Your task to perform on an android device: Open privacy settings Image 0: 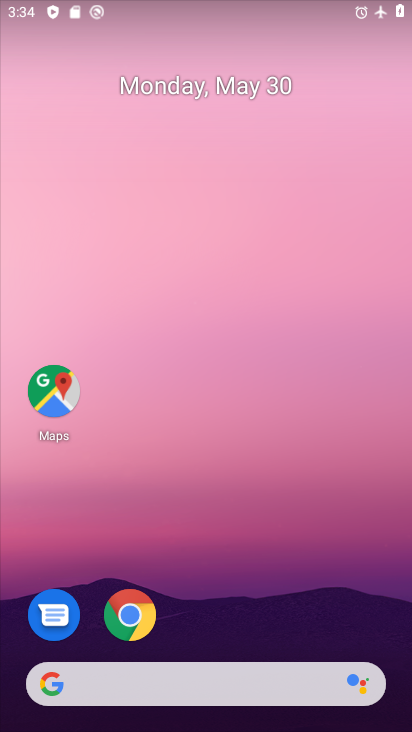
Step 0: drag from (243, 575) to (327, 2)
Your task to perform on an android device: Open privacy settings Image 1: 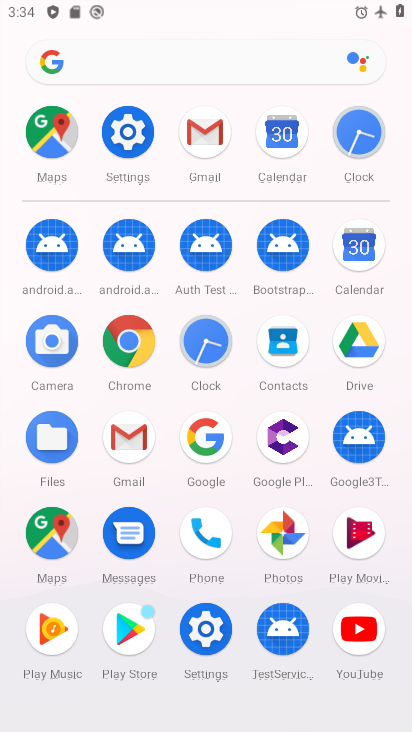
Step 1: click (131, 126)
Your task to perform on an android device: Open privacy settings Image 2: 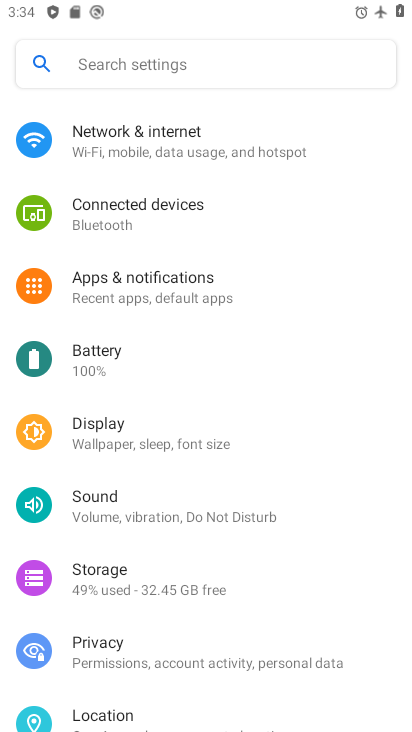
Step 2: click (193, 649)
Your task to perform on an android device: Open privacy settings Image 3: 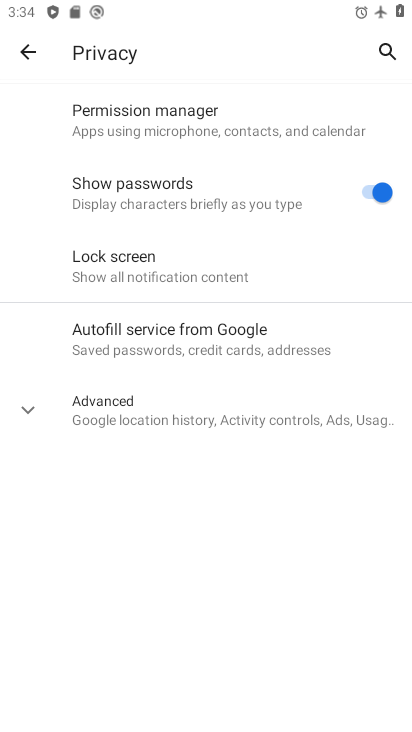
Step 3: task complete